Your task to perform on an android device: Search for Mexican restaurants on Maps Image 0: 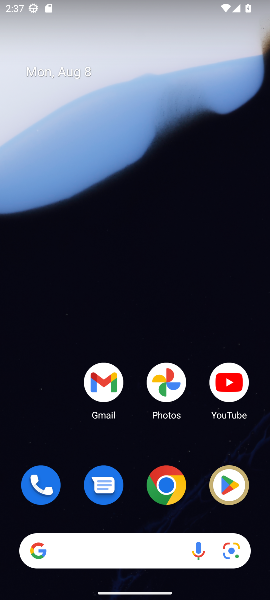
Step 0: drag from (204, 478) to (143, 11)
Your task to perform on an android device: Search for Mexican restaurants on Maps Image 1: 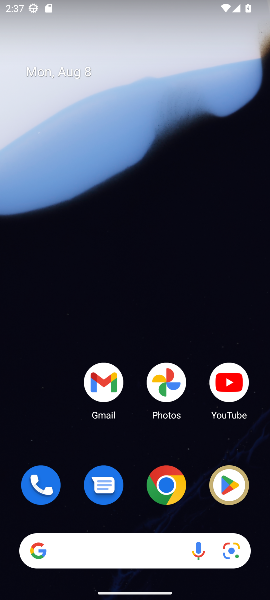
Step 1: drag from (153, 294) to (266, 526)
Your task to perform on an android device: Search for Mexican restaurants on Maps Image 2: 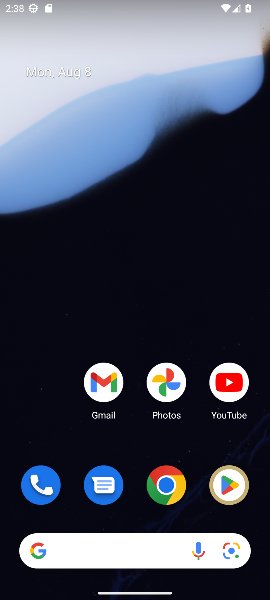
Step 2: drag from (136, 150) to (160, 33)
Your task to perform on an android device: Search for Mexican restaurants on Maps Image 3: 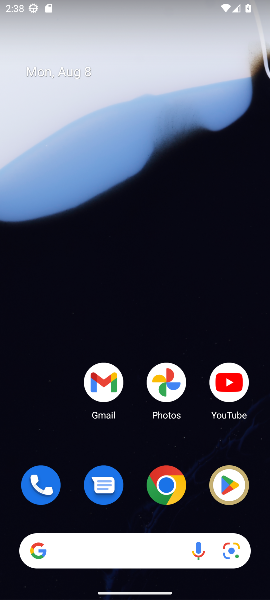
Step 3: drag from (186, 352) to (124, 0)
Your task to perform on an android device: Search for Mexican restaurants on Maps Image 4: 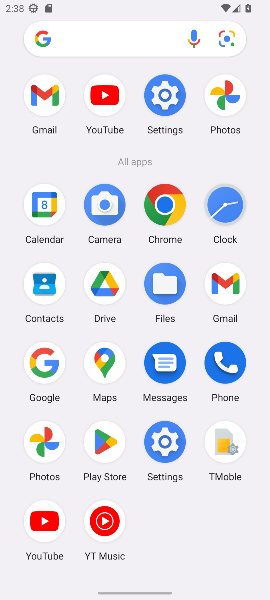
Step 4: drag from (186, 421) to (153, 160)
Your task to perform on an android device: Search for Mexican restaurants on Maps Image 5: 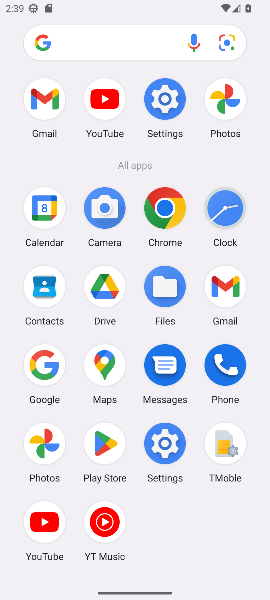
Step 5: click (110, 364)
Your task to perform on an android device: Search for Mexican restaurants on Maps Image 6: 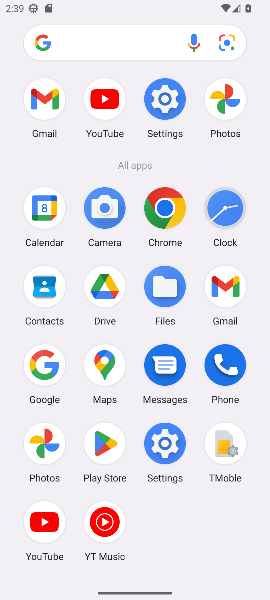
Step 6: click (110, 364)
Your task to perform on an android device: Search for Mexican restaurants on Maps Image 7: 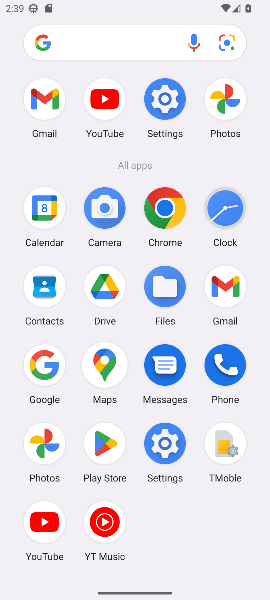
Step 7: click (110, 364)
Your task to perform on an android device: Search for Mexican restaurants on Maps Image 8: 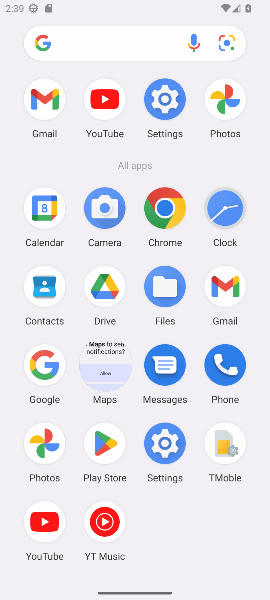
Step 8: click (110, 365)
Your task to perform on an android device: Search for Mexican restaurants on Maps Image 9: 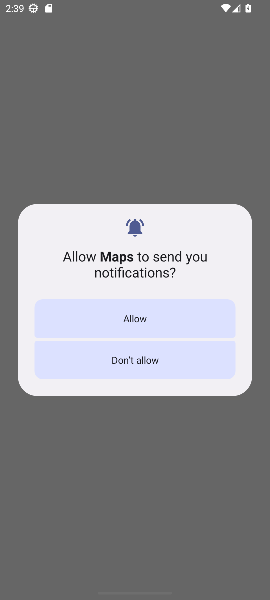
Step 9: click (110, 365)
Your task to perform on an android device: Search for Mexican restaurants on Maps Image 10: 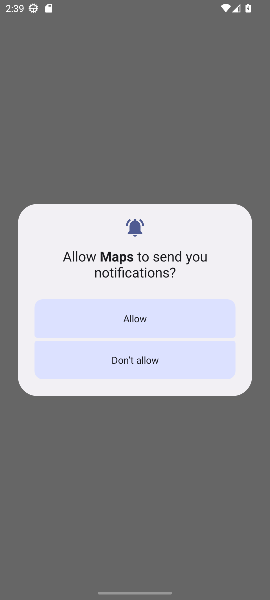
Step 10: click (110, 365)
Your task to perform on an android device: Search for Mexican restaurants on Maps Image 11: 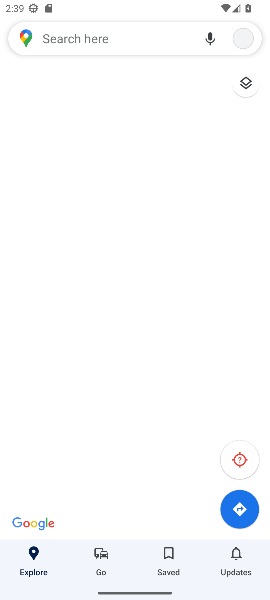
Step 11: click (65, 34)
Your task to perform on an android device: Search for Mexican restaurants on Maps Image 12: 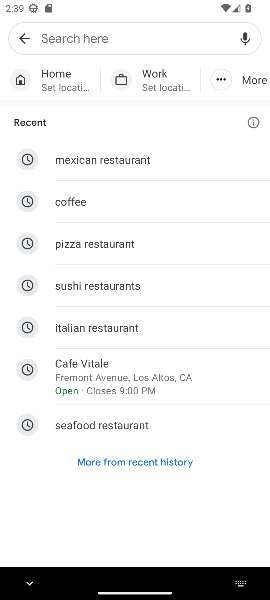
Step 12: type "mexican"
Your task to perform on an android device: Search for Mexican restaurants on Maps Image 13: 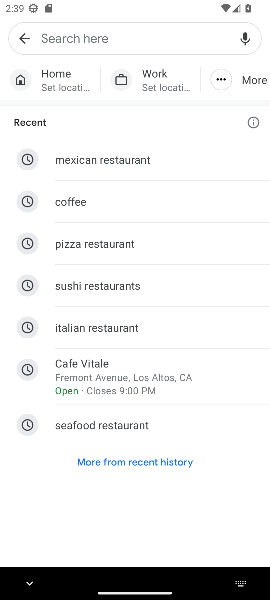
Step 13: click (92, 165)
Your task to perform on an android device: Search for Mexican restaurants on Maps Image 14: 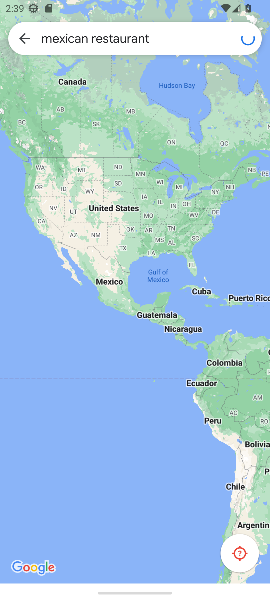
Step 14: click (119, 154)
Your task to perform on an android device: Search for Mexican restaurants on Maps Image 15: 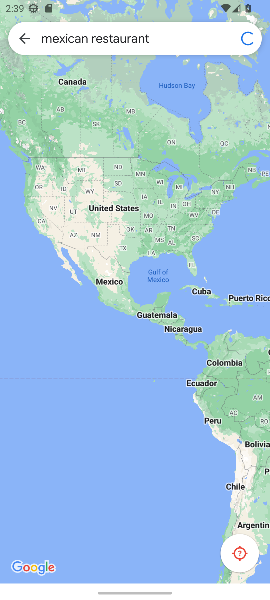
Step 15: click (119, 154)
Your task to perform on an android device: Search for Mexican restaurants on Maps Image 16: 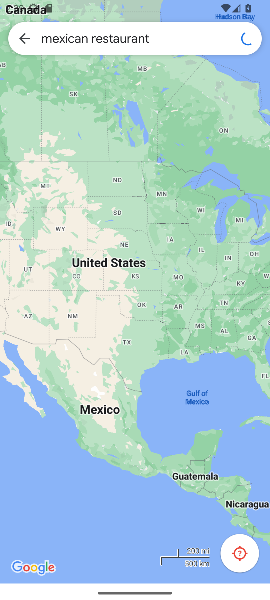
Step 16: task complete